Your task to perform on an android device: make emails show in primary in the gmail app Image 0: 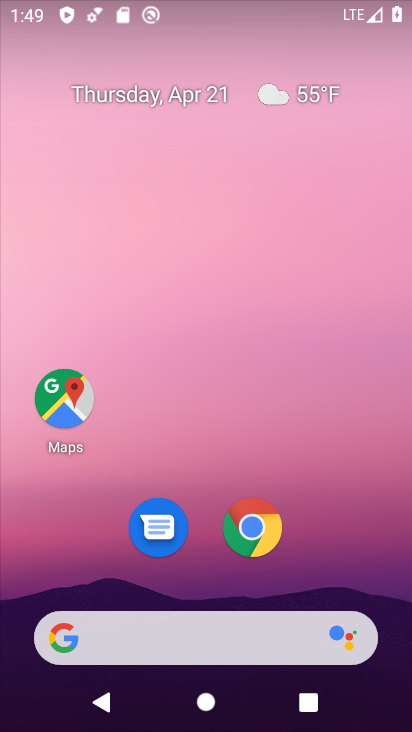
Step 0: drag from (339, 556) to (357, 102)
Your task to perform on an android device: make emails show in primary in the gmail app Image 1: 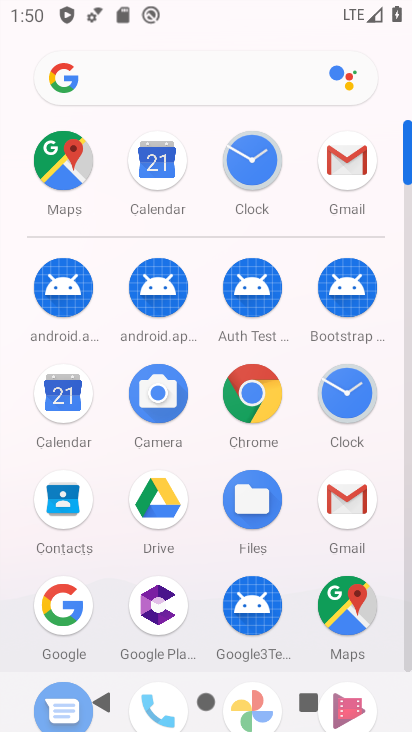
Step 1: click (354, 503)
Your task to perform on an android device: make emails show in primary in the gmail app Image 2: 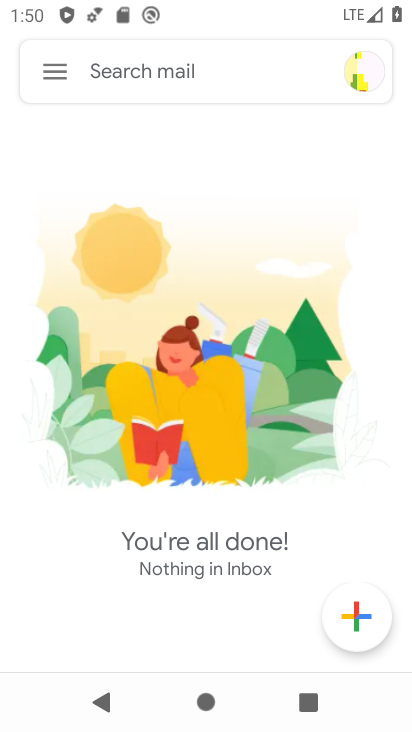
Step 2: click (50, 73)
Your task to perform on an android device: make emails show in primary in the gmail app Image 3: 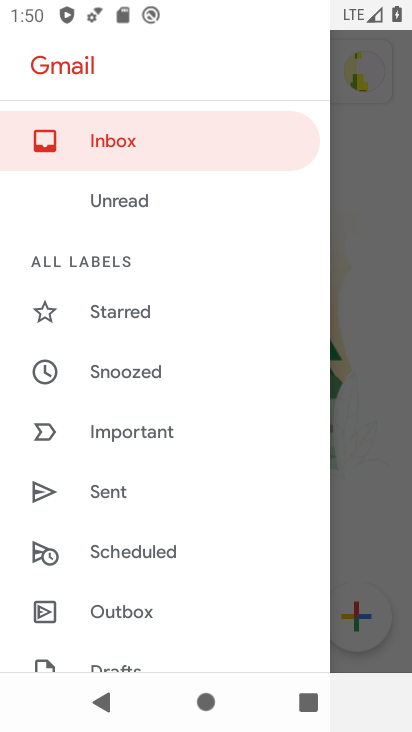
Step 3: drag from (251, 493) to (264, 372)
Your task to perform on an android device: make emails show in primary in the gmail app Image 4: 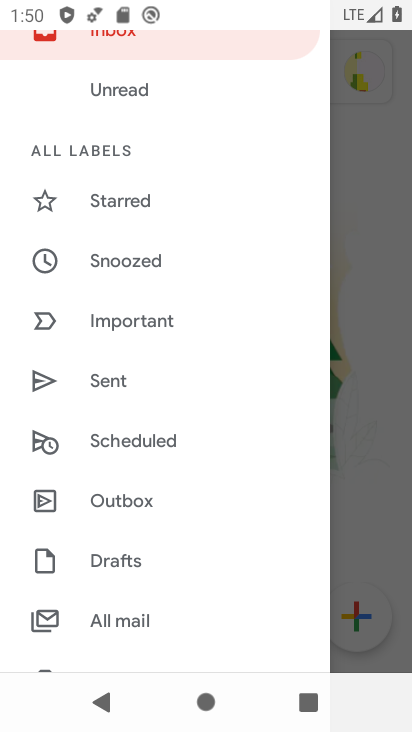
Step 4: drag from (253, 515) to (262, 445)
Your task to perform on an android device: make emails show in primary in the gmail app Image 5: 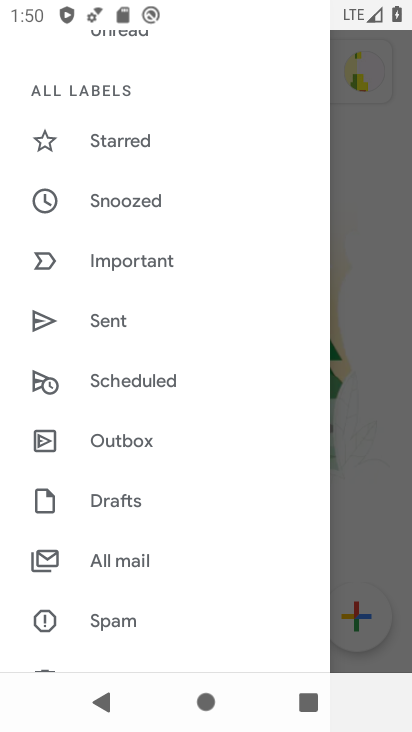
Step 5: drag from (265, 543) to (277, 432)
Your task to perform on an android device: make emails show in primary in the gmail app Image 6: 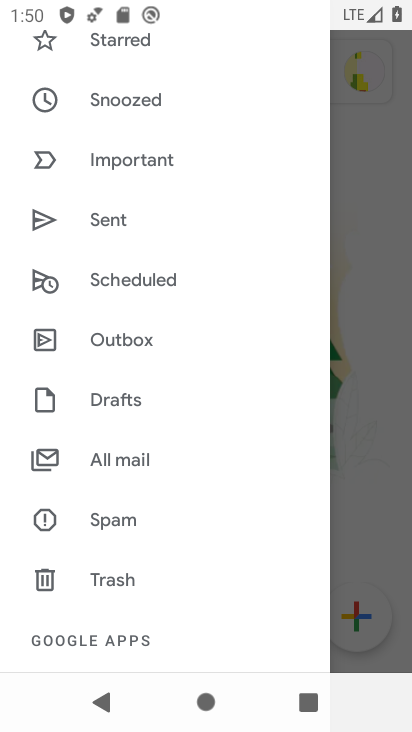
Step 6: drag from (259, 560) to (270, 431)
Your task to perform on an android device: make emails show in primary in the gmail app Image 7: 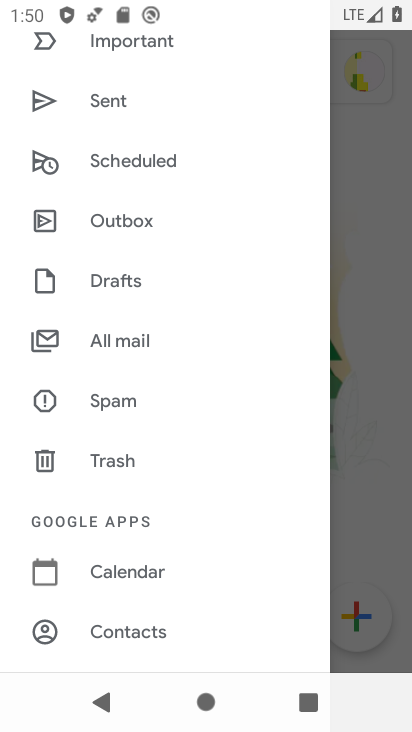
Step 7: drag from (258, 563) to (276, 444)
Your task to perform on an android device: make emails show in primary in the gmail app Image 8: 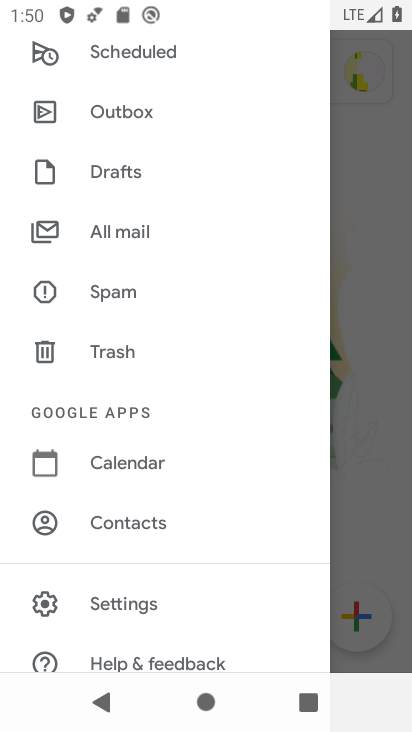
Step 8: drag from (255, 582) to (270, 460)
Your task to perform on an android device: make emails show in primary in the gmail app Image 9: 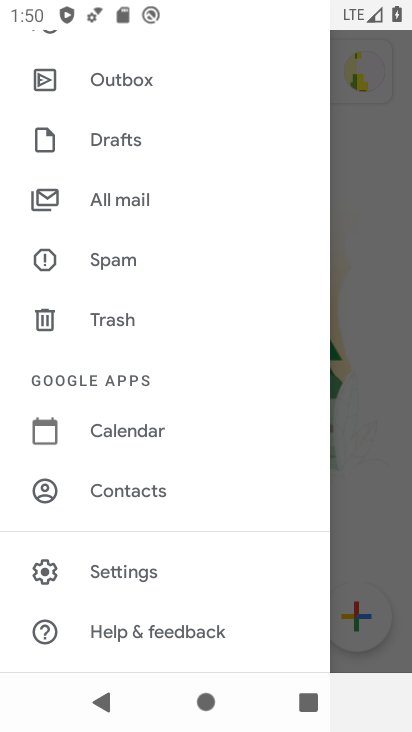
Step 9: click (186, 579)
Your task to perform on an android device: make emails show in primary in the gmail app Image 10: 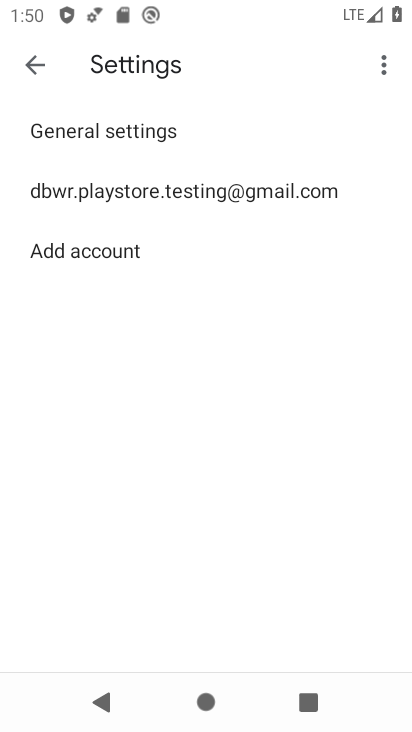
Step 10: click (240, 206)
Your task to perform on an android device: make emails show in primary in the gmail app Image 11: 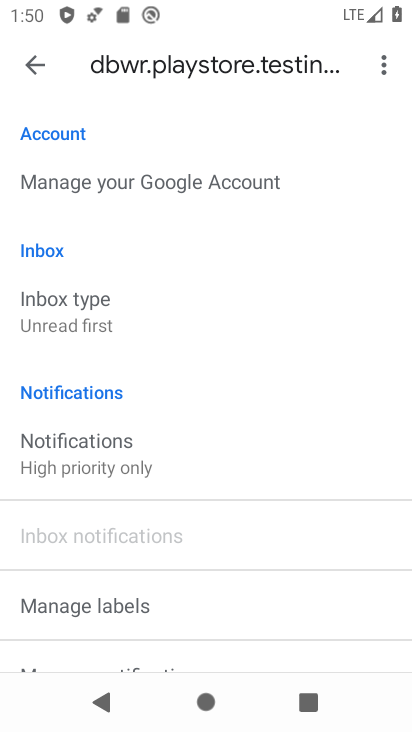
Step 11: drag from (295, 530) to (313, 429)
Your task to perform on an android device: make emails show in primary in the gmail app Image 12: 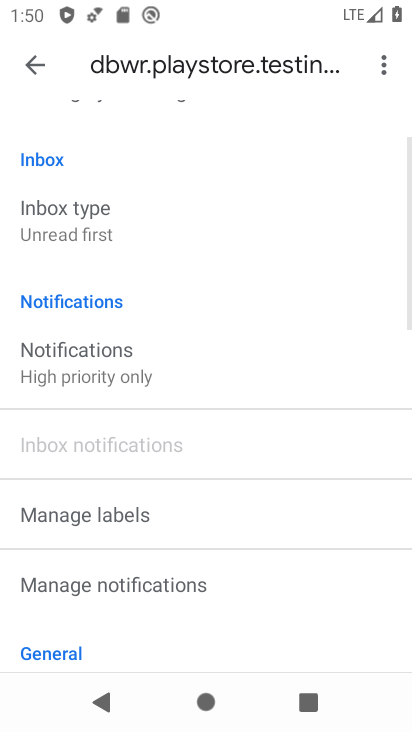
Step 12: drag from (316, 589) to (331, 476)
Your task to perform on an android device: make emails show in primary in the gmail app Image 13: 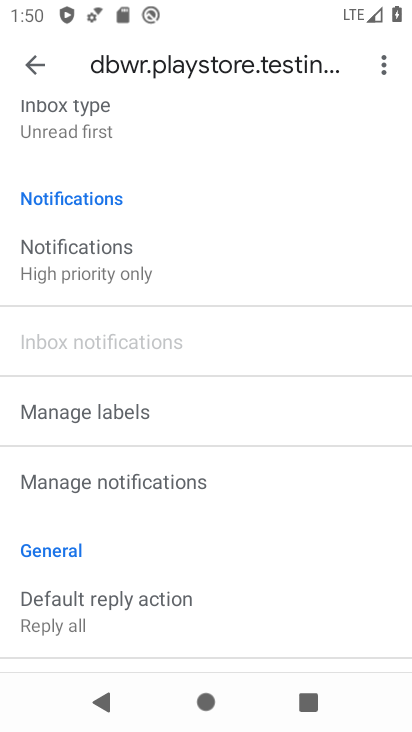
Step 13: drag from (320, 572) to (322, 477)
Your task to perform on an android device: make emails show in primary in the gmail app Image 14: 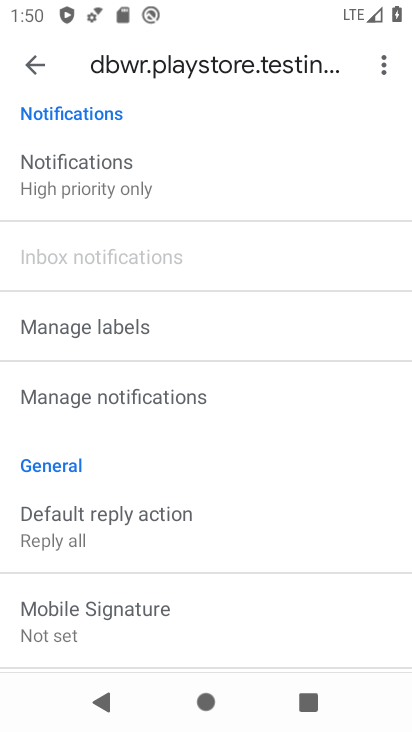
Step 14: drag from (317, 587) to (318, 473)
Your task to perform on an android device: make emails show in primary in the gmail app Image 15: 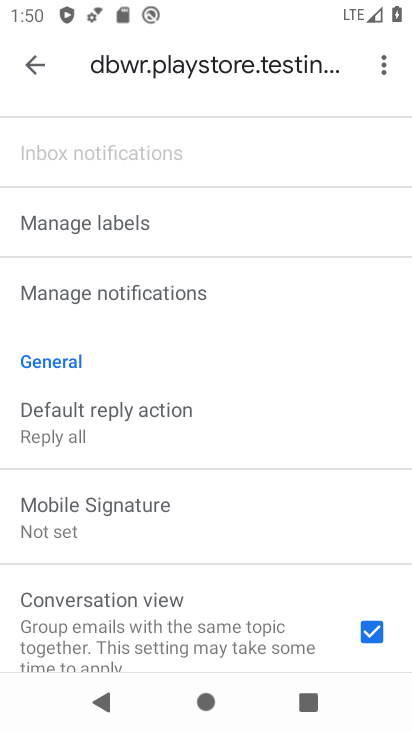
Step 15: drag from (302, 580) to (323, 429)
Your task to perform on an android device: make emails show in primary in the gmail app Image 16: 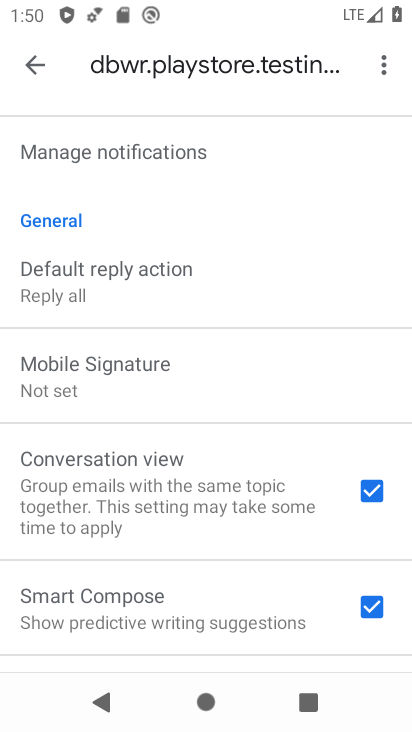
Step 16: drag from (305, 612) to (320, 433)
Your task to perform on an android device: make emails show in primary in the gmail app Image 17: 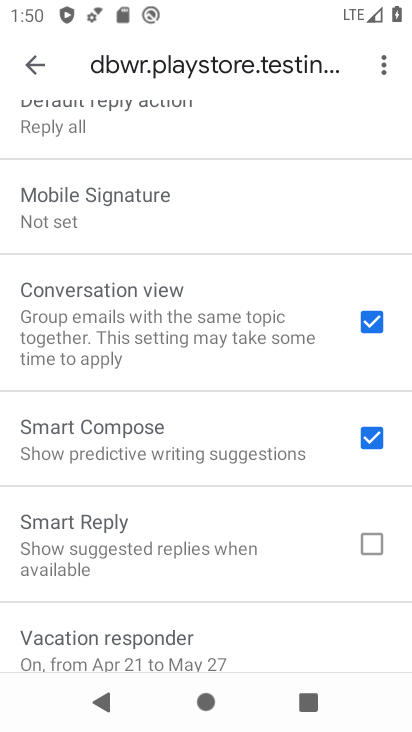
Step 17: drag from (309, 607) to (322, 460)
Your task to perform on an android device: make emails show in primary in the gmail app Image 18: 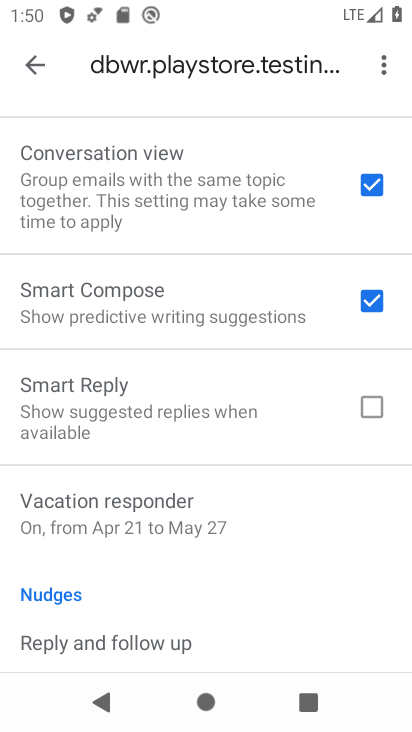
Step 18: drag from (306, 593) to (315, 461)
Your task to perform on an android device: make emails show in primary in the gmail app Image 19: 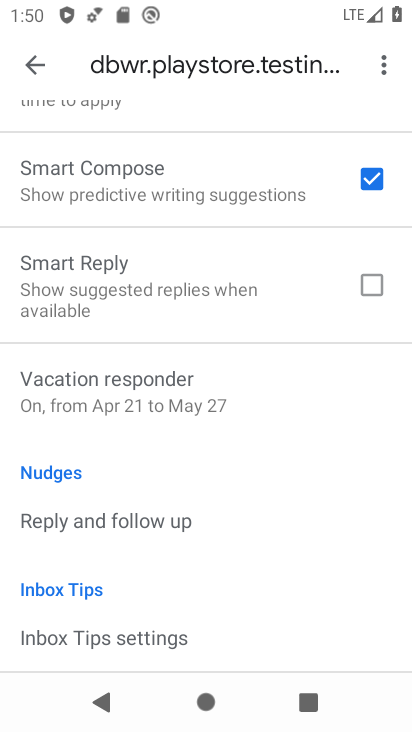
Step 19: drag from (303, 265) to (298, 444)
Your task to perform on an android device: make emails show in primary in the gmail app Image 20: 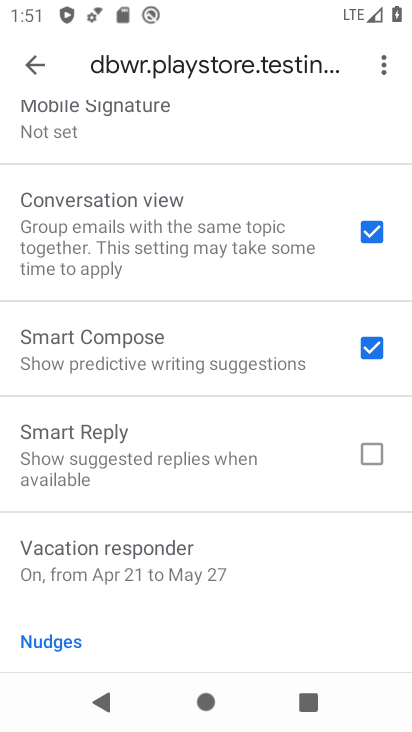
Step 20: drag from (328, 217) to (342, 412)
Your task to perform on an android device: make emails show in primary in the gmail app Image 21: 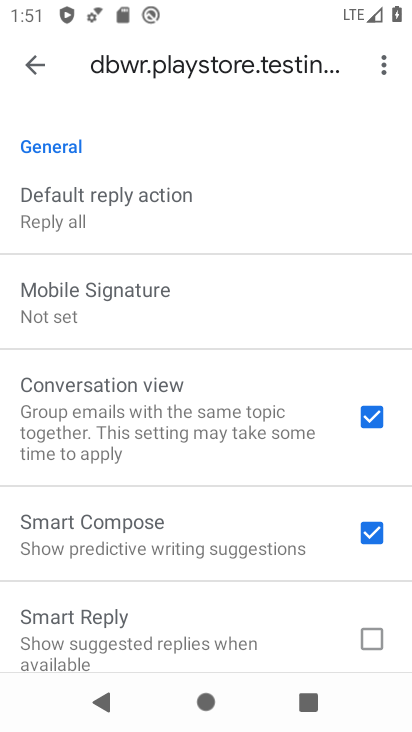
Step 21: drag from (315, 206) to (306, 421)
Your task to perform on an android device: make emails show in primary in the gmail app Image 22: 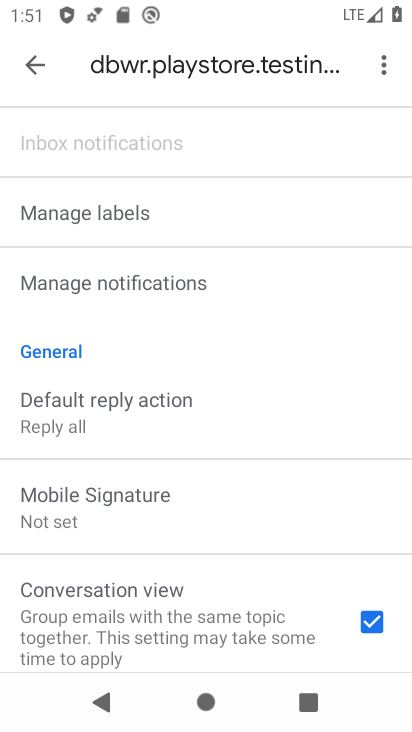
Step 22: drag from (292, 202) to (289, 461)
Your task to perform on an android device: make emails show in primary in the gmail app Image 23: 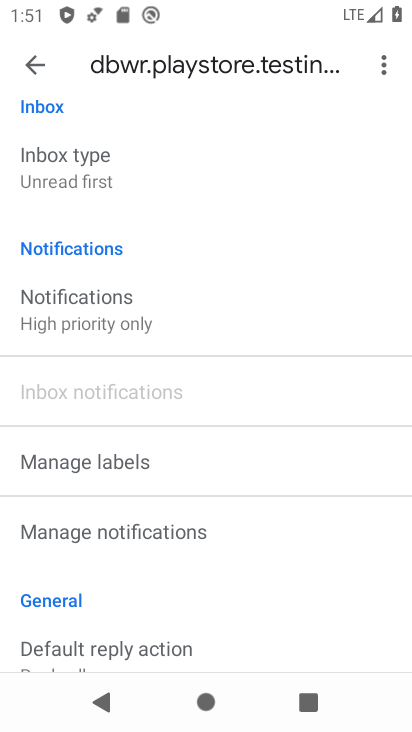
Step 23: drag from (304, 221) to (294, 400)
Your task to perform on an android device: make emails show in primary in the gmail app Image 24: 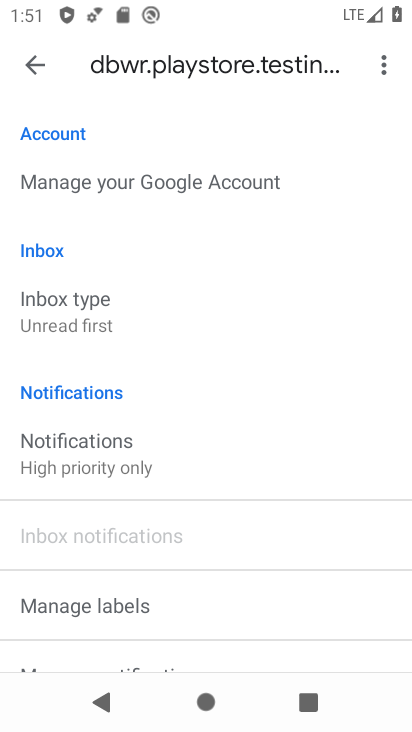
Step 24: click (83, 312)
Your task to perform on an android device: make emails show in primary in the gmail app Image 25: 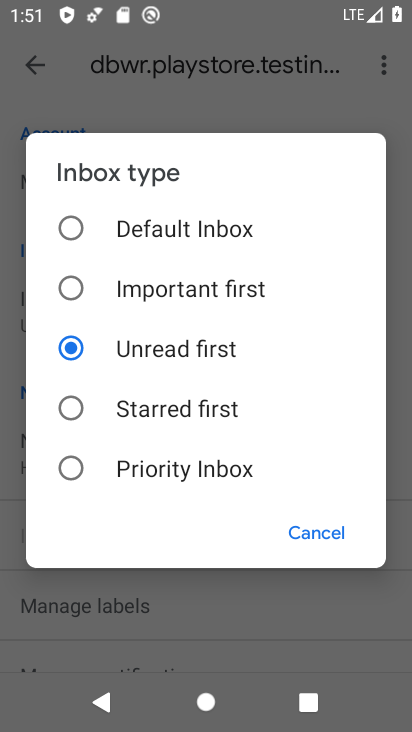
Step 25: click (67, 216)
Your task to perform on an android device: make emails show in primary in the gmail app Image 26: 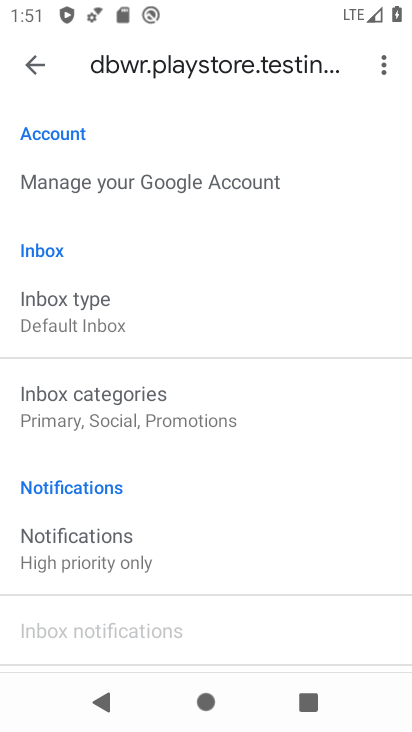
Step 26: click (91, 412)
Your task to perform on an android device: make emails show in primary in the gmail app Image 27: 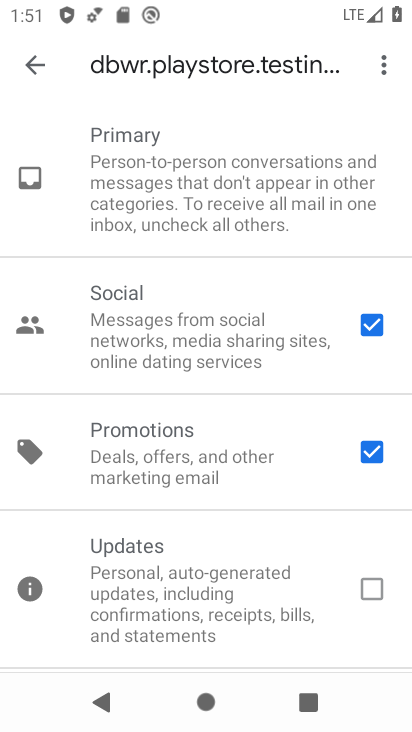
Step 27: click (363, 446)
Your task to perform on an android device: make emails show in primary in the gmail app Image 28: 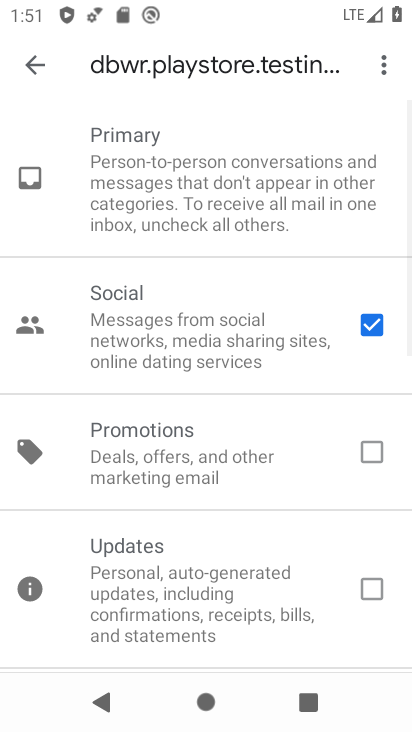
Step 28: click (372, 327)
Your task to perform on an android device: make emails show in primary in the gmail app Image 29: 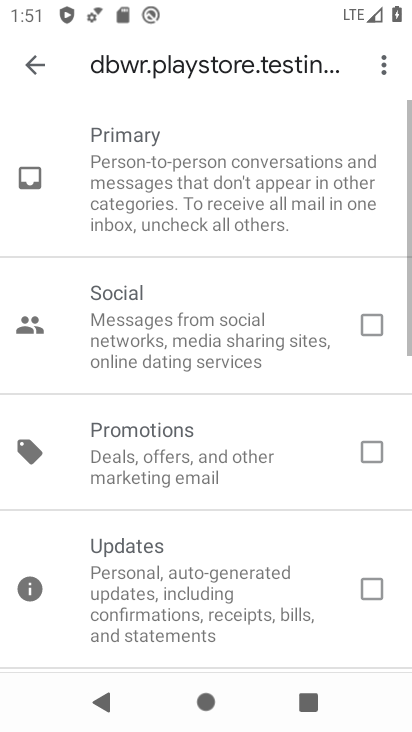
Step 29: task complete